Your task to perform on an android device: Open Google Maps and go to "Timeline" Image 0: 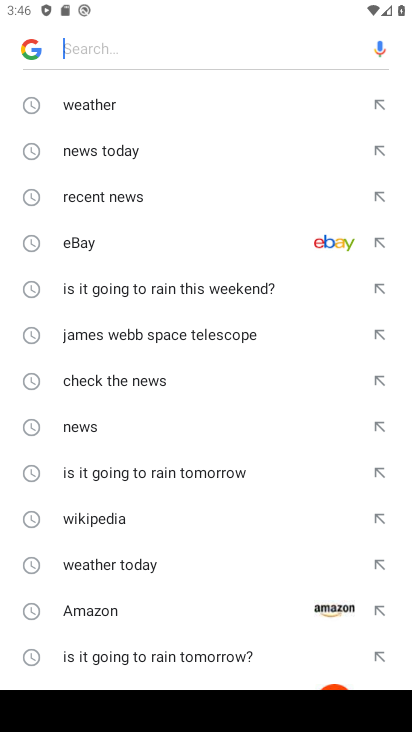
Step 0: press home button
Your task to perform on an android device: Open Google Maps and go to "Timeline" Image 1: 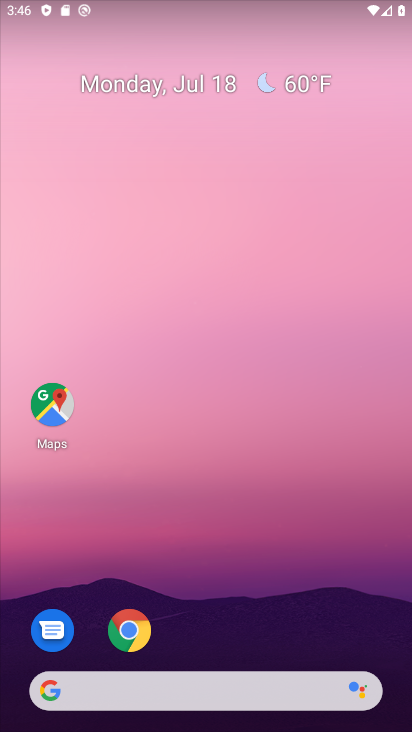
Step 1: drag from (283, 596) to (231, 118)
Your task to perform on an android device: Open Google Maps and go to "Timeline" Image 2: 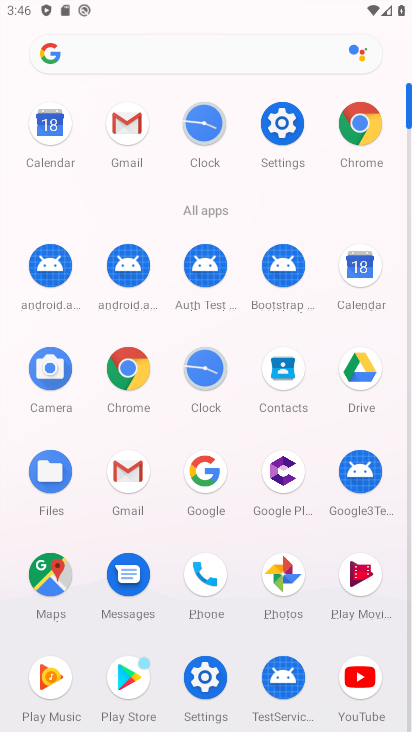
Step 2: click (43, 559)
Your task to perform on an android device: Open Google Maps and go to "Timeline" Image 3: 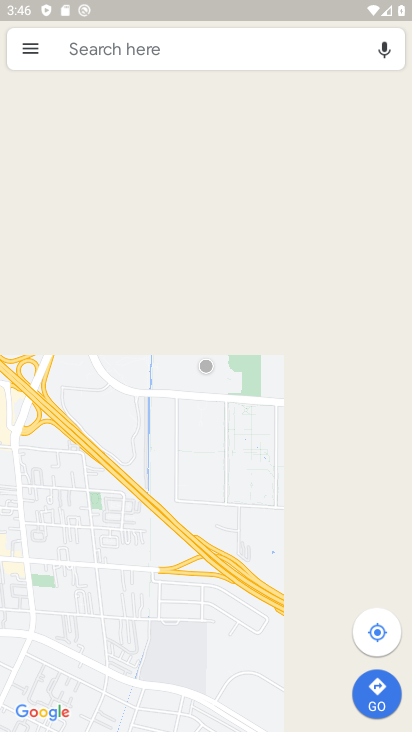
Step 3: click (42, 46)
Your task to perform on an android device: Open Google Maps and go to "Timeline" Image 4: 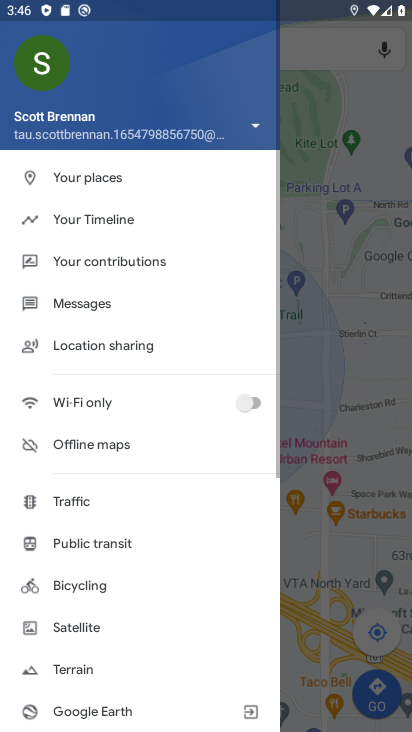
Step 4: click (86, 221)
Your task to perform on an android device: Open Google Maps and go to "Timeline" Image 5: 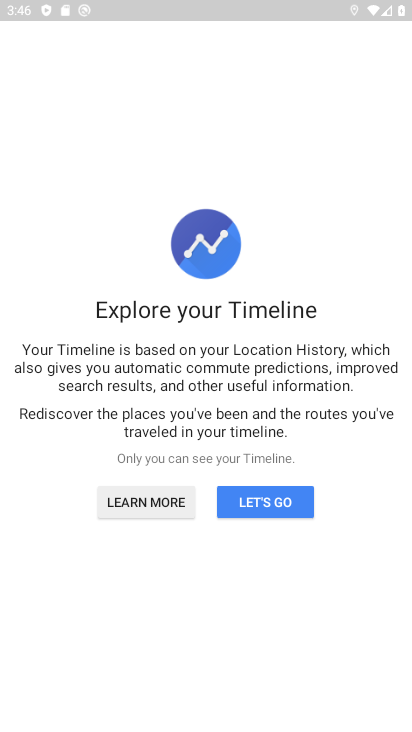
Step 5: click (275, 491)
Your task to perform on an android device: Open Google Maps and go to "Timeline" Image 6: 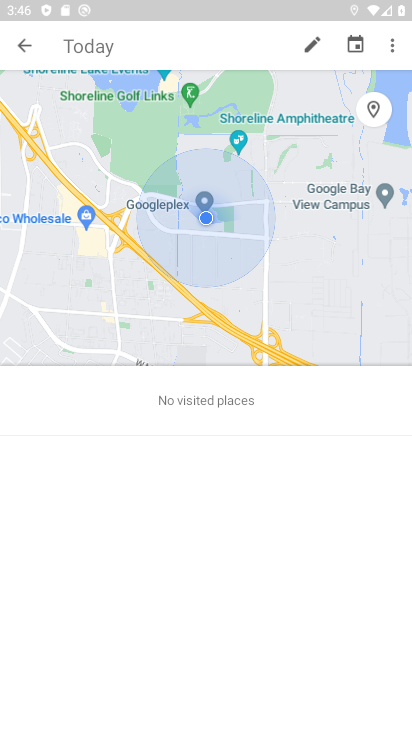
Step 6: click (275, 491)
Your task to perform on an android device: Open Google Maps and go to "Timeline" Image 7: 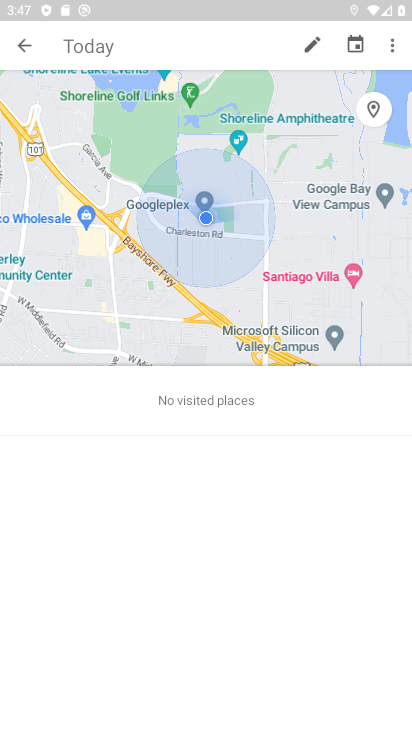
Step 7: task complete